Your task to perform on an android device: refresh tabs in the chrome app Image 0: 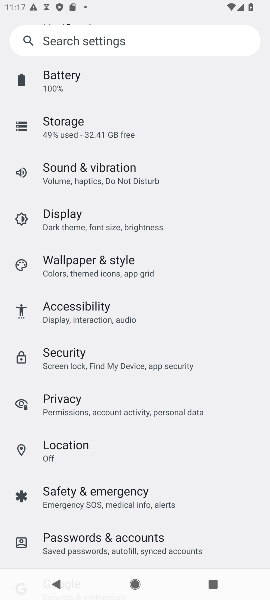
Step 0: press back button
Your task to perform on an android device: refresh tabs in the chrome app Image 1: 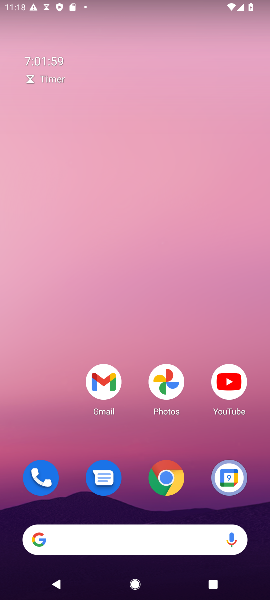
Step 1: click (159, 502)
Your task to perform on an android device: refresh tabs in the chrome app Image 2: 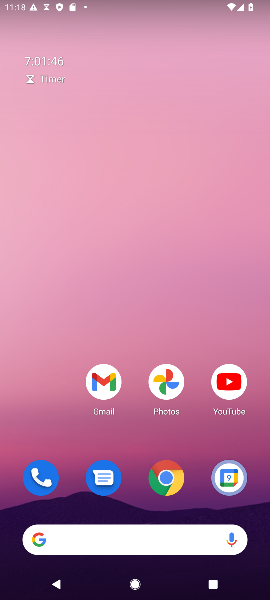
Step 2: click (168, 489)
Your task to perform on an android device: refresh tabs in the chrome app Image 3: 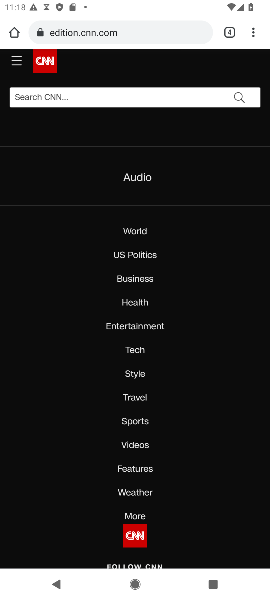
Step 3: click (242, 41)
Your task to perform on an android device: refresh tabs in the chrome app Image 4: 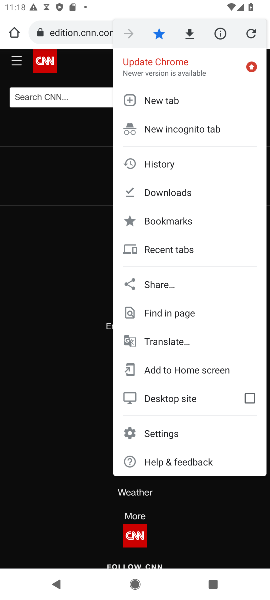
Step 4: click (249, 38)
Your task to perform on an android device: refresh tabs in the chrome app Image 5: 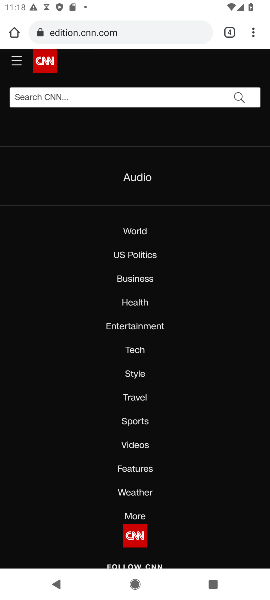
Step 5: task complete